Your task to perform on an android device: Open the phone app and click the voicemail tab. Image 0: 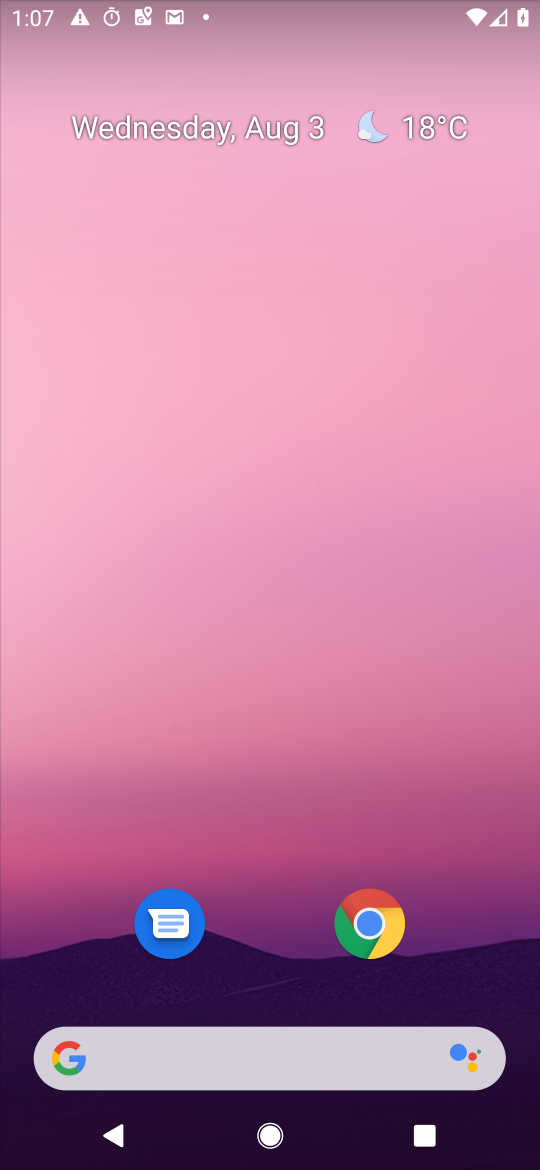
Step 0: drag from (286, 954) to (342, 306)
Your task to perform on an android device: Open the phone app and click the voicemail tab. Image 1: 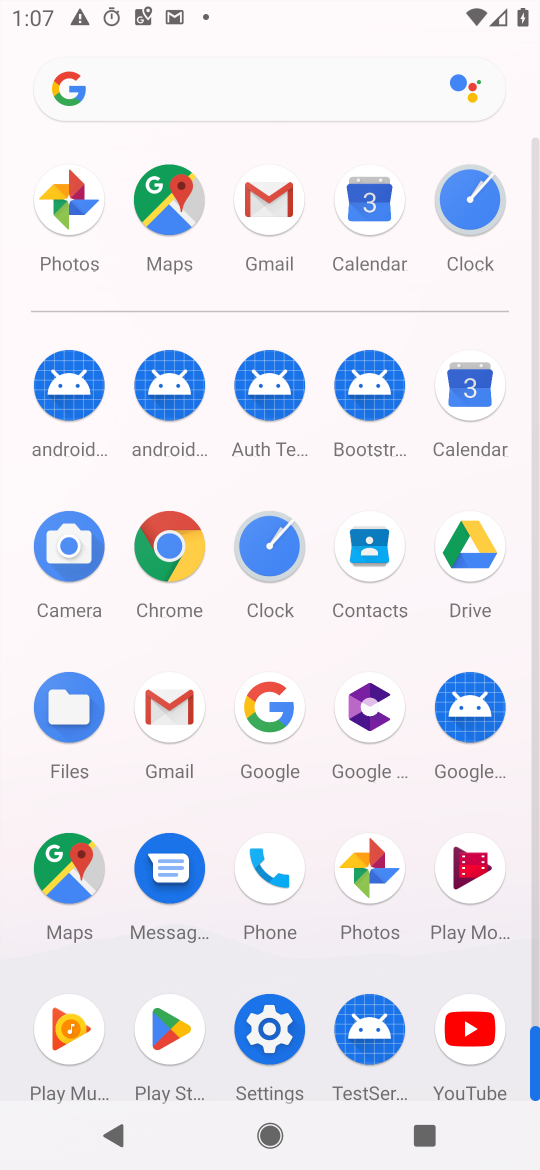
Step 1: drag from (307, 910) to (334, 639)
Your task to perform on an android device: Open the phone app and click the voicemail tab. Image 2: 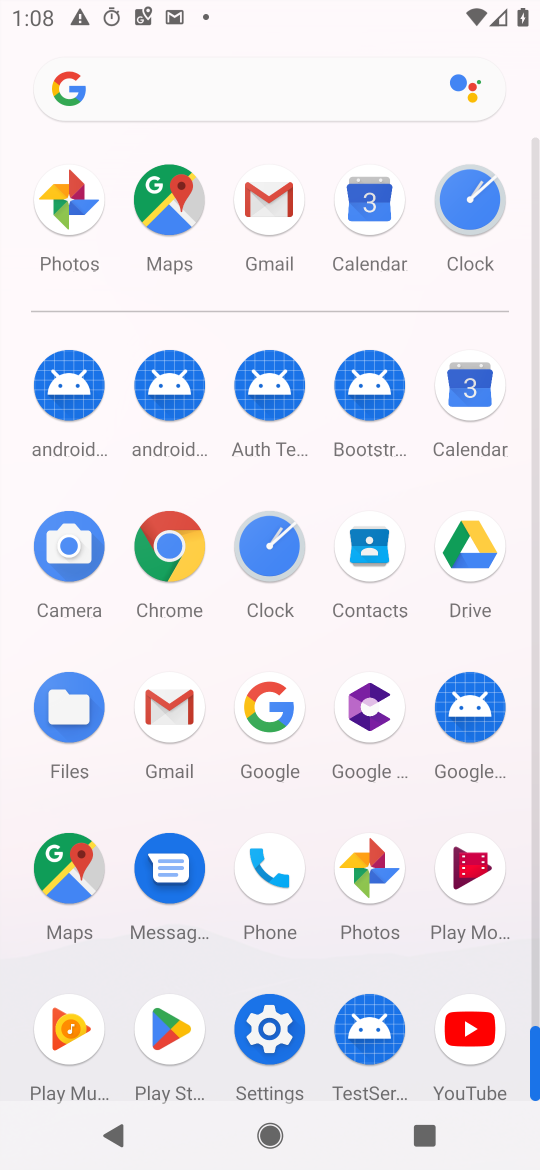
Step 2: click (269, 849)
Your task to perform on an android device: Open the phone app and click the voicemail tab. Image 3: 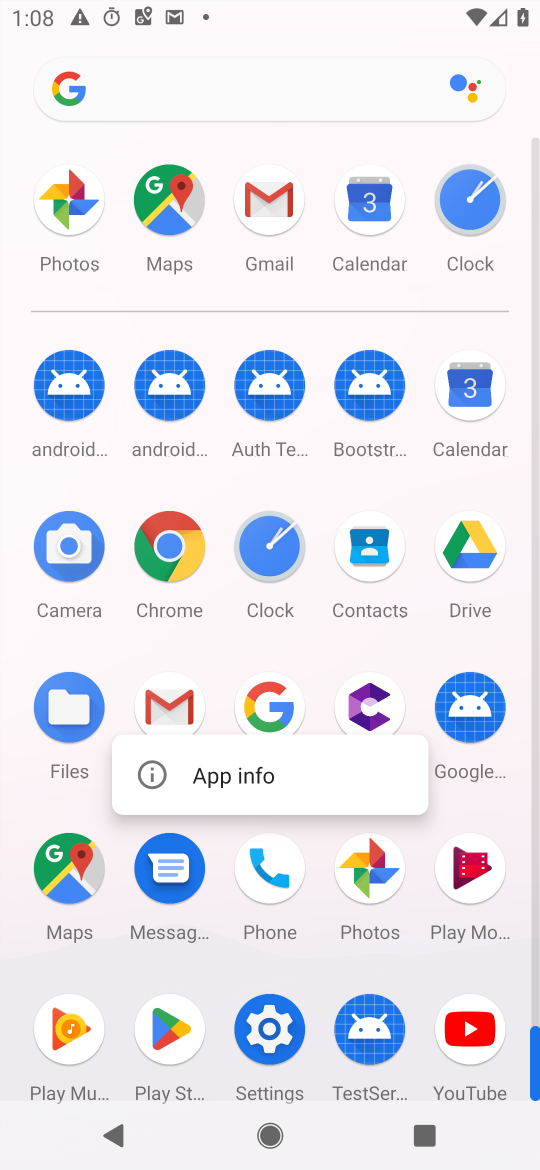
Step 3: click (193, 783)
Your task to perform on an android device: Open the phone app and click the voicemail tab. Image 4: 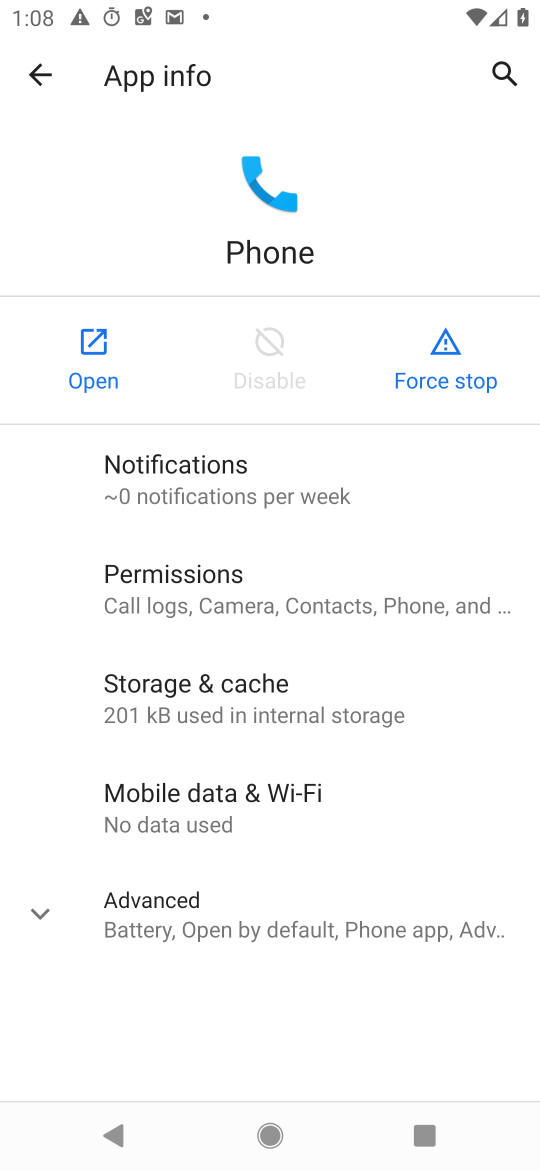
Step 4: click (90, 370)
Your task to perform on an android device: Open the phone app and click the voicemail tab. Image 5: 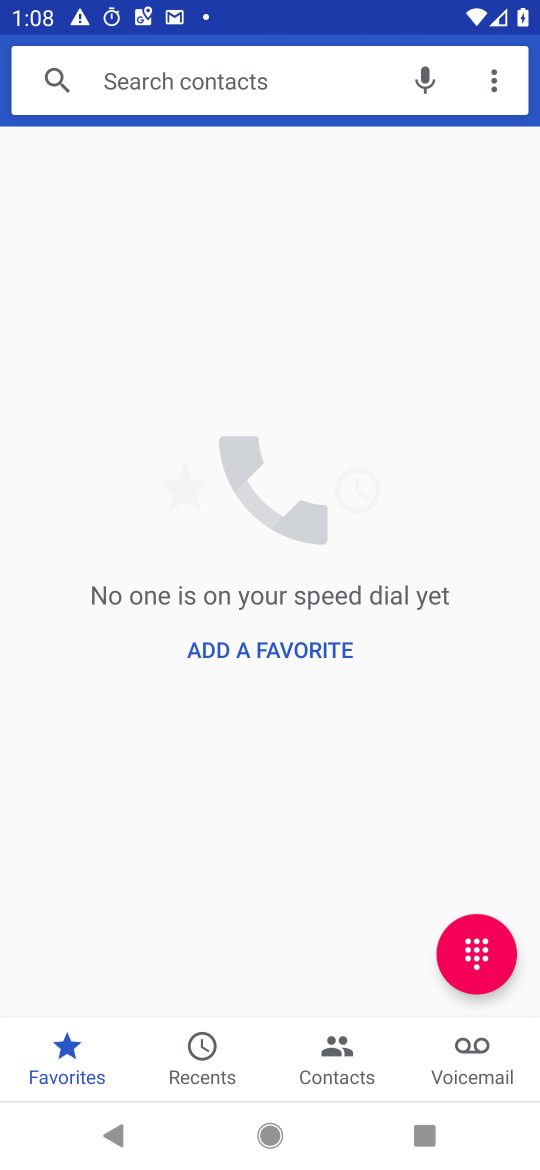
Step 5: click (502, 1063)
Your task to perform on an android device: Open the phone app and click the voicemail tab. Image 6: 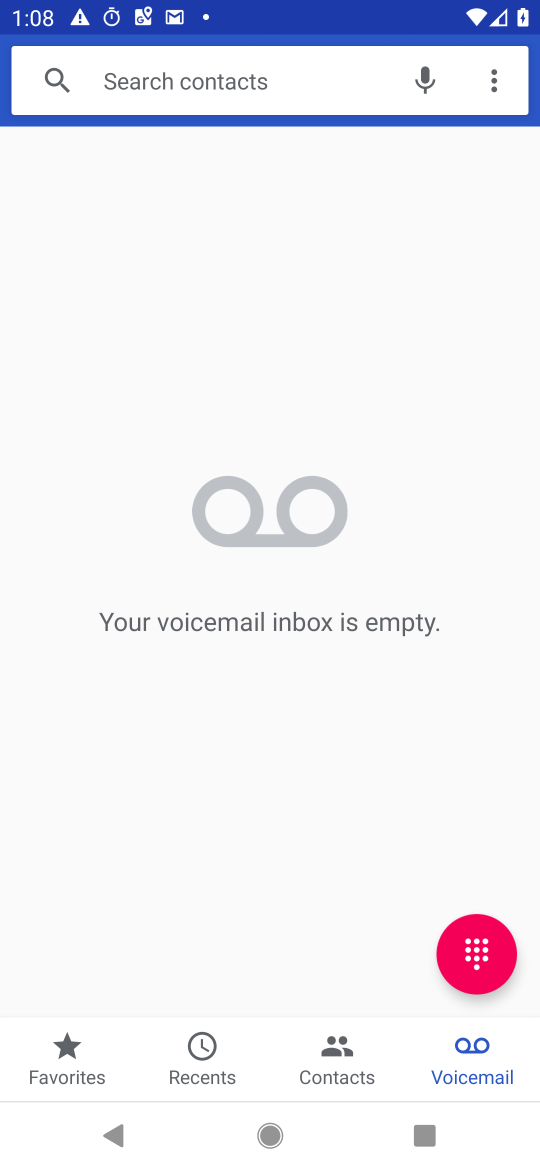
Step 6: task complete